Your task to perform on an android device: toggle pop-ups in chrome Image 0: 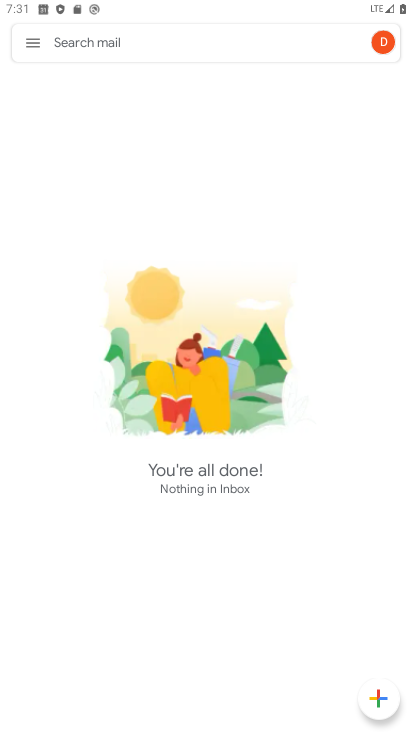
Step 0: press home button
Your task to perform on an android device: toggle pop-ups in chrome Image 1: 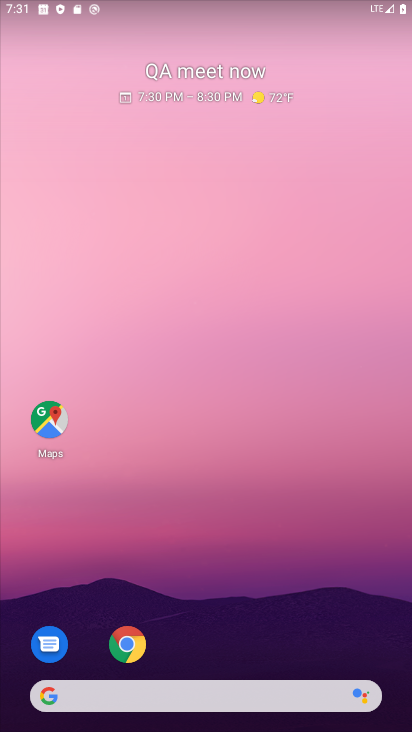
Step 1: drag from (258, 726) to (208, 315)
Your task to perform on an android device: toggle pop-ups in chrome Image 2: 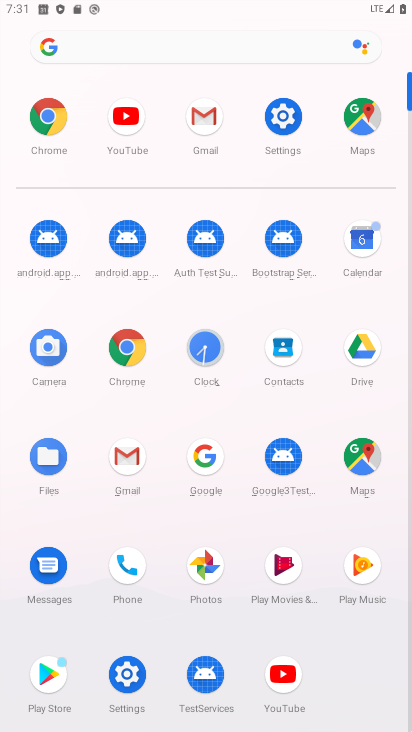
Step 2: click (56, 105)
Your task to perform on an android device: toggle pop-ups in chrome Image 3: 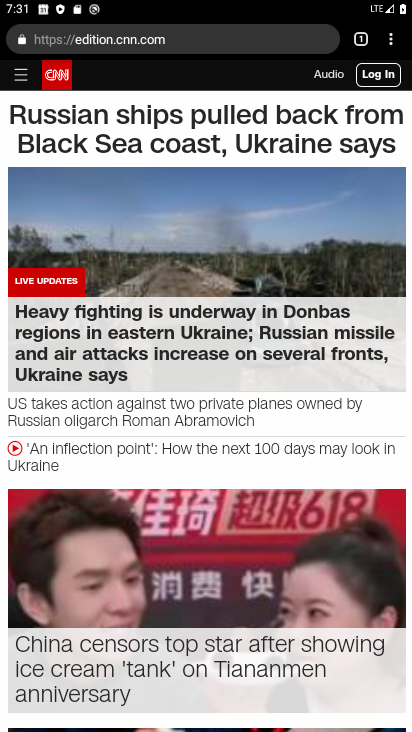
Step 3: click (386, 51)
Your task to perform on an android device: toggle pop-ups in chrome Image 4: 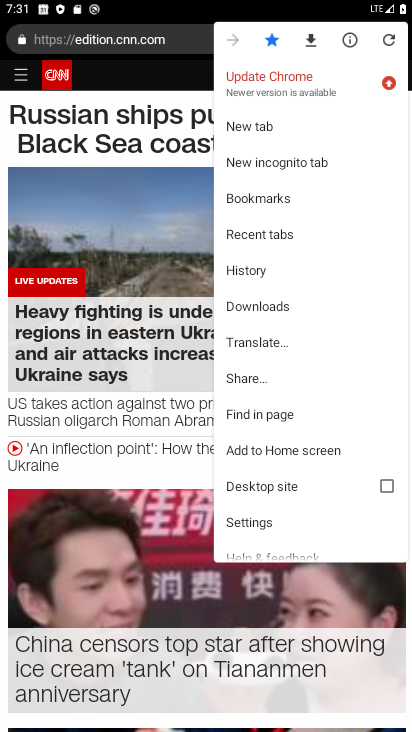
Step 4: click (262, 523)
Your task to perform on an android device: toggle pop-ups in chrome Image 5: 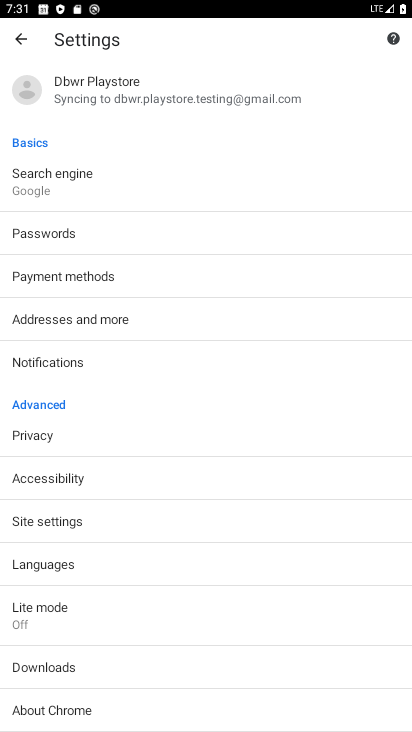
Step 5: click (61, 514)
Your task to perform on an android device: toggle pop-ups in chrome Image 6: 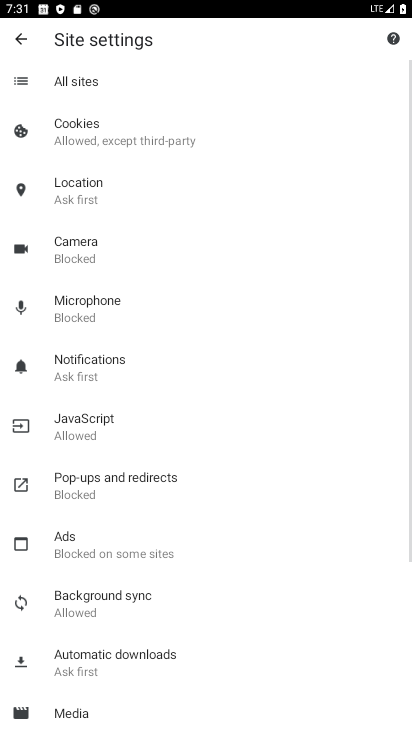
Step 6: click (103, 466)
Your task to perform on an android device: toggle pop-ups in chrome Image 7: 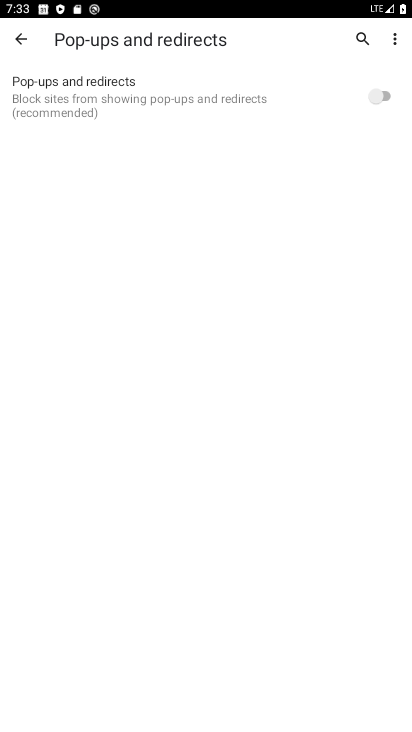
Step 7: task complete